Your task to perform on an android device: What's on my calendar today? Image 0: 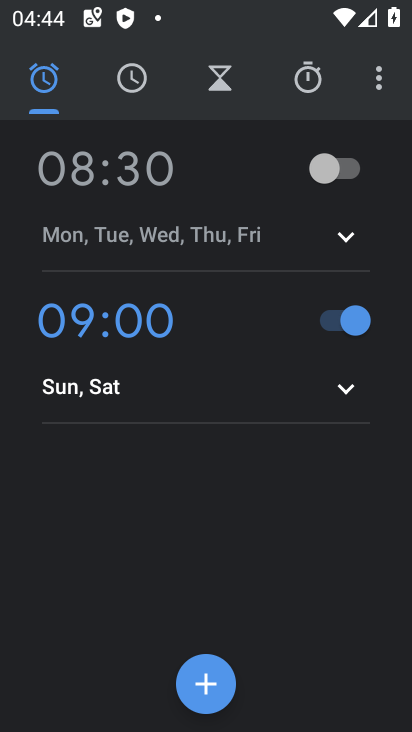
Step 0: press home button
Your task to perform on an android device: What's on my calendar today? Image 1: 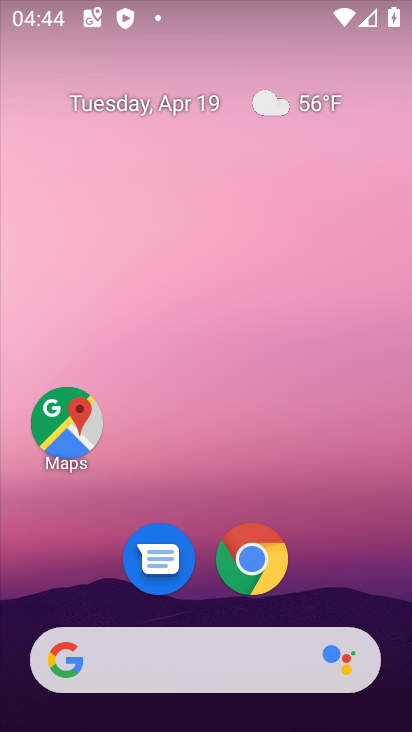
Step 1: drag from (357, 449) to (324, 170)
Your task to perform on an android device: What's on my calendar today? Image 2: 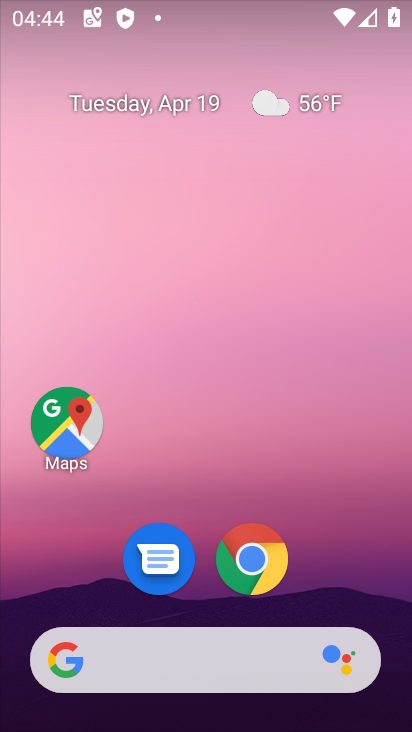
Step 2: drag from (375, 590) to (340, 250)
Your task to perform on an android device: What's on my calendar today? Image 3: 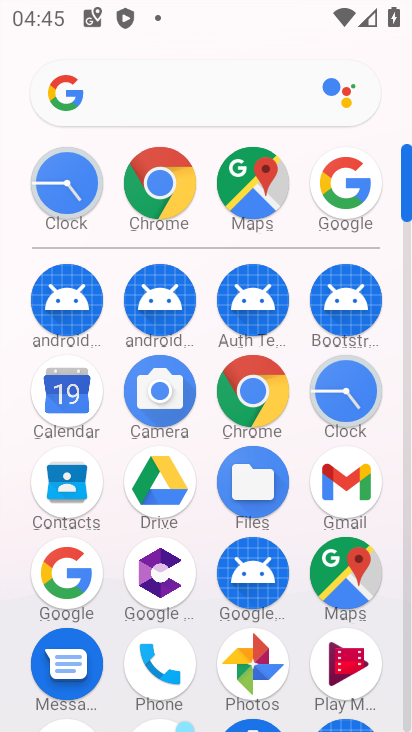
Step 3: click (74, 409)
Your task to perform on an android device: What's on my calendar today? Image 4: 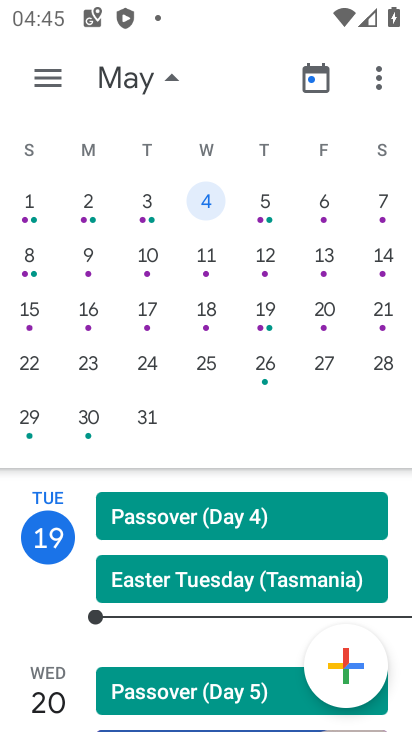
Step 4: drag from (240, 263) to (409, 260)
Your task to perform on an android device: What's on my calendar today? Image 5: 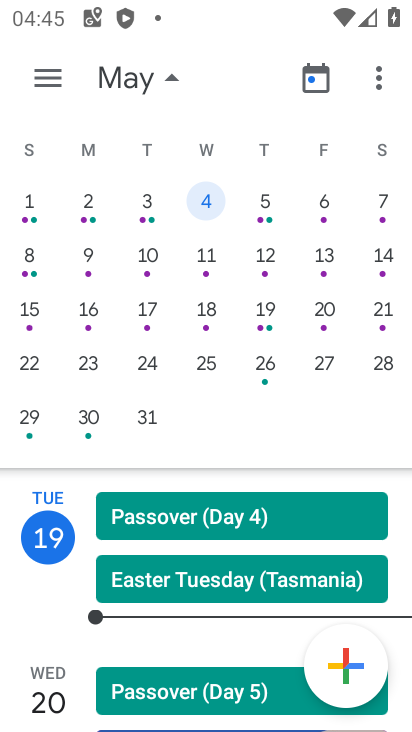
Step 5: drag from (13, 272) to (353, 47)
Your task to perform on an android device: What's on my calendar today? Image 6: 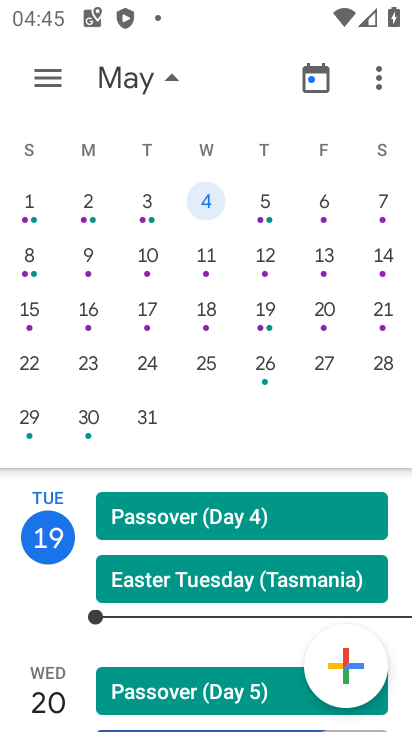
Step 6: drag from (8, 280) to (382, 296)
Your task to perform on an android device: What's on my calendar today? Image 7: 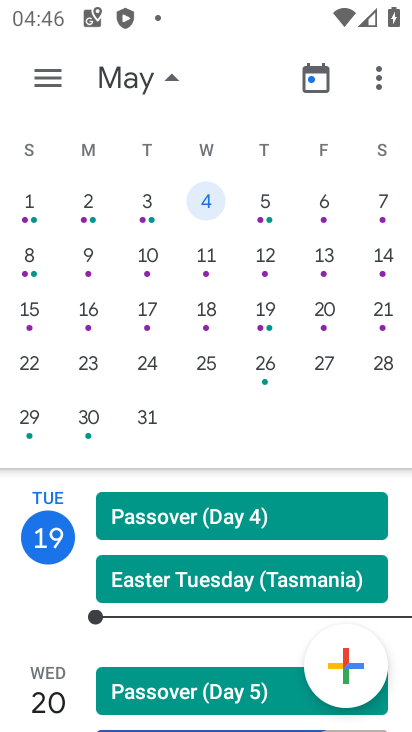
Step 7: drag from (14, 287) to (248, 301)
Your task to perform on an android device: What's on my calendar today? Image 8: 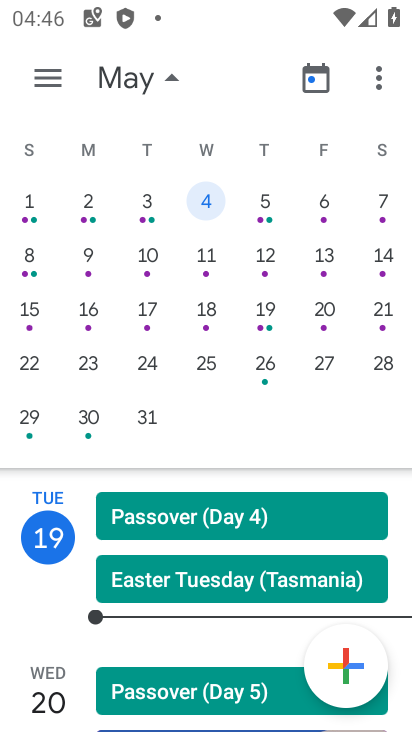
Step 8: drag from (211, 291) to (404, 293)
Your task to perform on an android device: What's on my calendar today? Image 9: 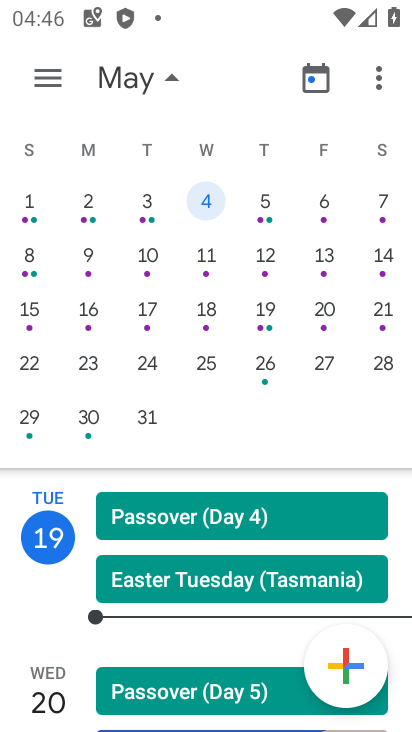
Step 9: drag from (14, 218) to (404, 298)
Your task to perform on an android device: What's on my calendar today? Image 10: 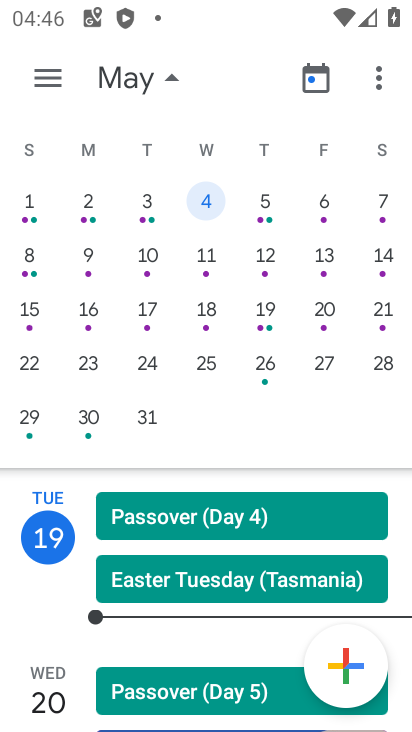
Step 10: drag from (10, 288) to (335, 286)
Your task to perform on an android device: What's on my calendar today? Image 11: 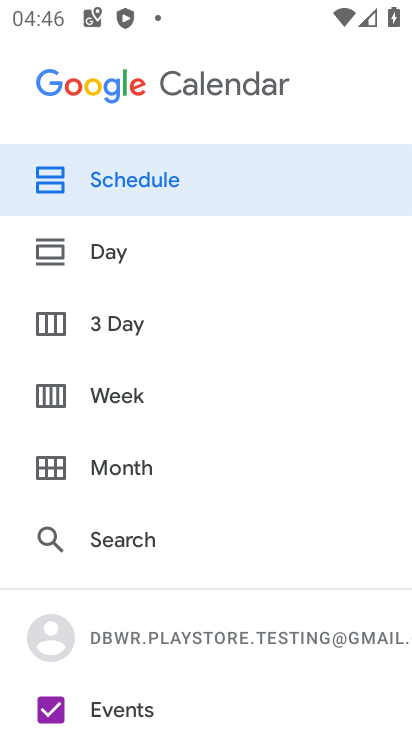
Step 11: press back button
Your task to perform on an android device: What's on my calendar today? Image 12: 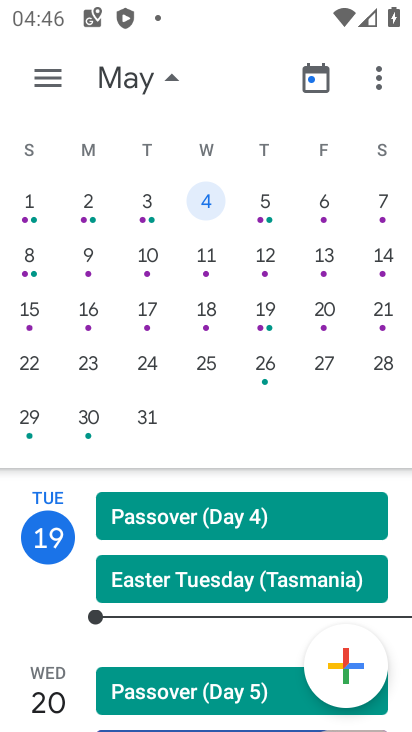
Step 12: click (325, 283)
Your task to perform on an android device: What's on my calendar today? Image 13: 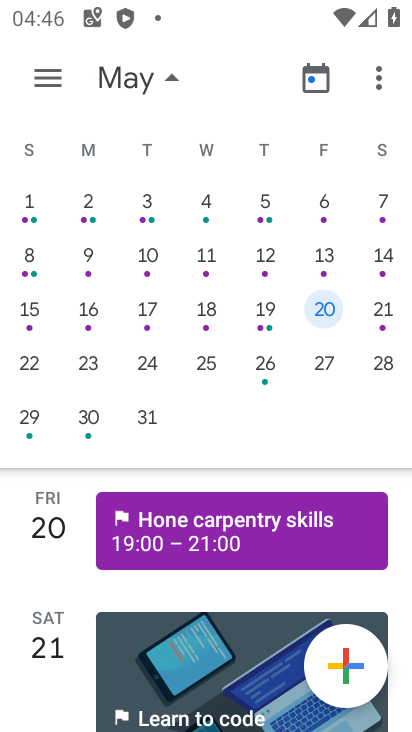
Step 13: drag from (88, 269) to (386, 206)
Your task to perform on an android device: What's on my calendar today? Image 14: 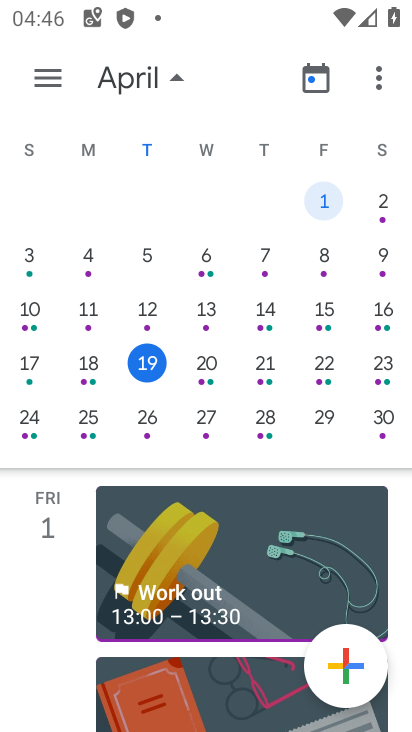
Step 14: click (155, 362)
Your task to perform on an android device: What's on my calendar today? Image 15: 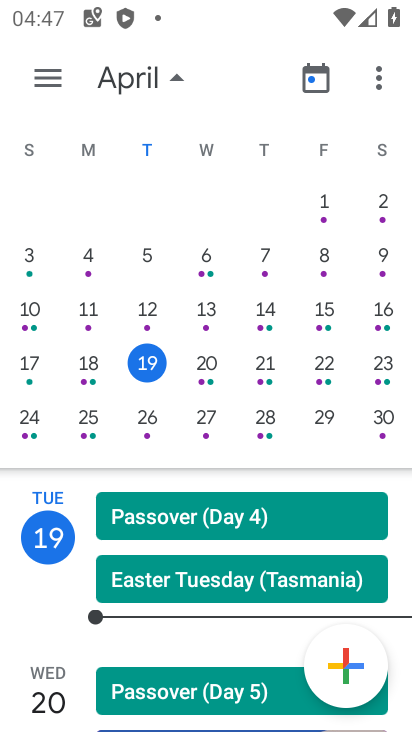
Step 15: task complete